Your task to perform on an android device: turn on airplane mode Image 0: 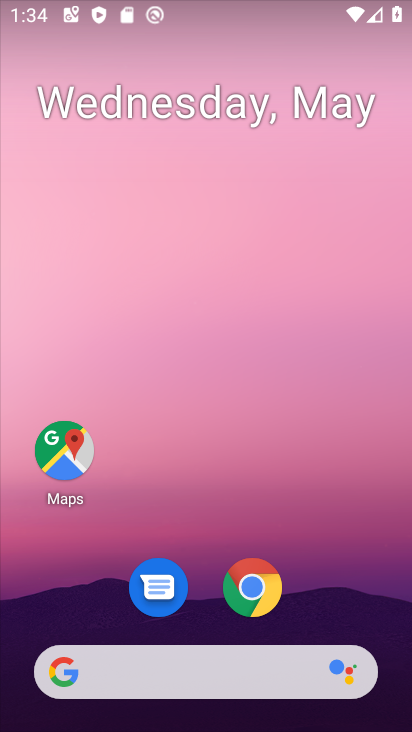
Step 0: drag from (318, 608) to (331, 61)
Your task to perform on an android device: turn on airplane mode Image 1: 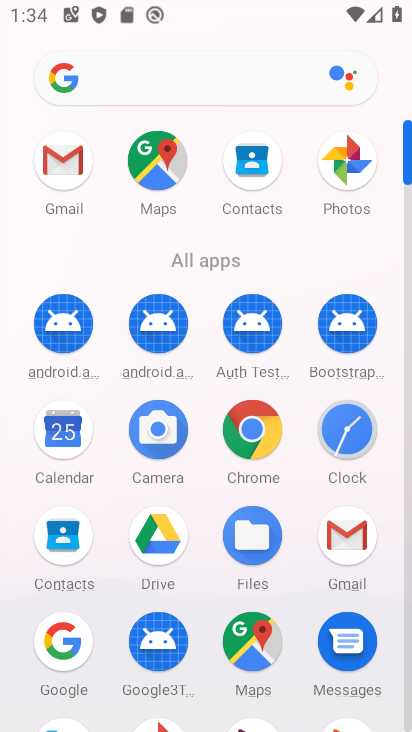
Step 1: drag from (195, 280) to (223, 20)
Your task to perform on an android device: turn on airplane mode Image 2: 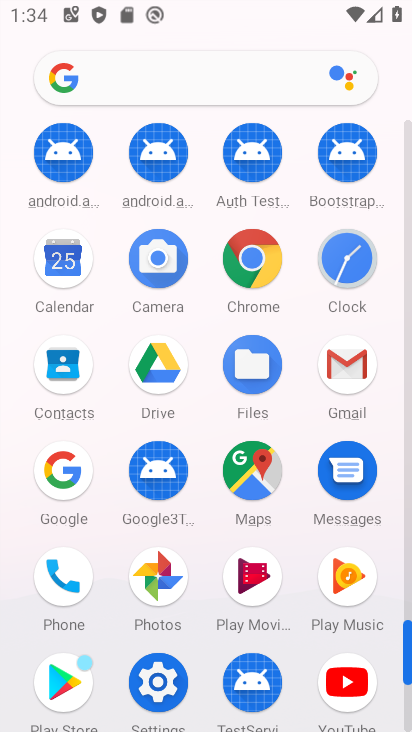
Step 2: click (146, 667)
Your task to perform on an android device: turn on airplane mode Image 3: 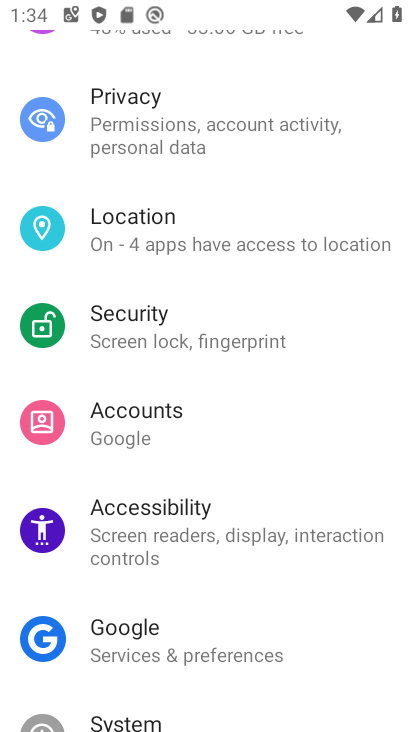
Step 3: drag from (136, 109) to (93, 730)
Your task to perform on an android device: turn on airplane mode Image 4: 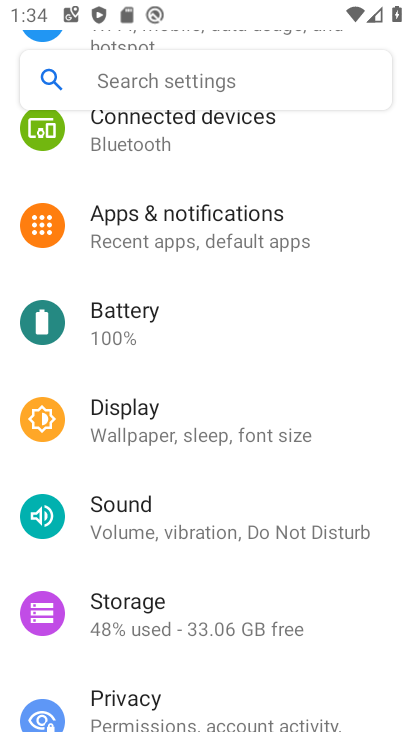
Step 4: drag from (155, 144) to (124, 725)
Your task to perform on an android device: turn on airplane mode Image 5: 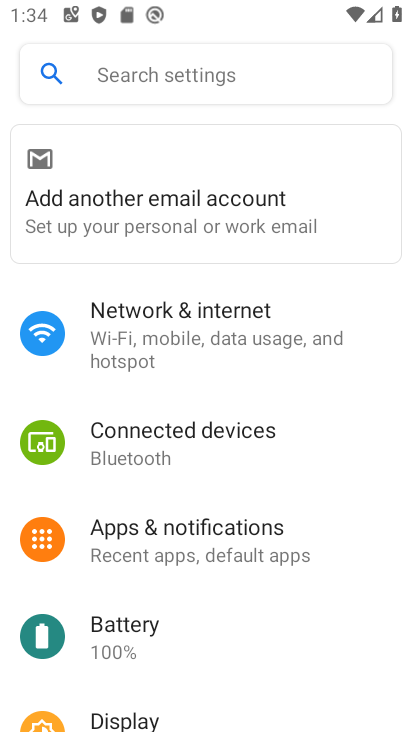
Step 5: drag from (365, 8) to (349, 655)
Your task to perform on an android device: turn on airplane mode Image 6: 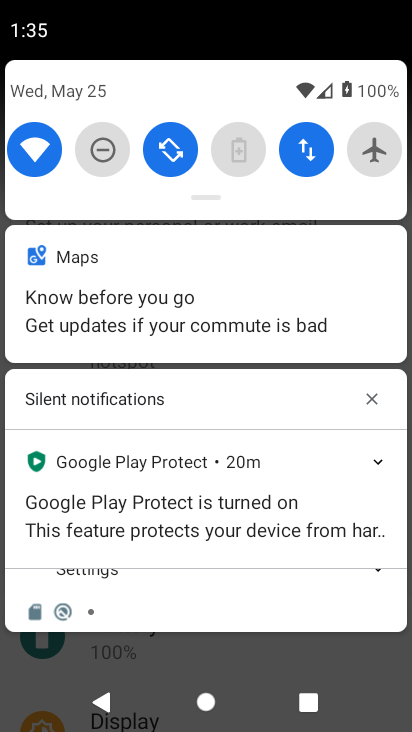
Step 6: click (375, 176)
Your task to perform on an android device: turn on airplane mode Image 7: 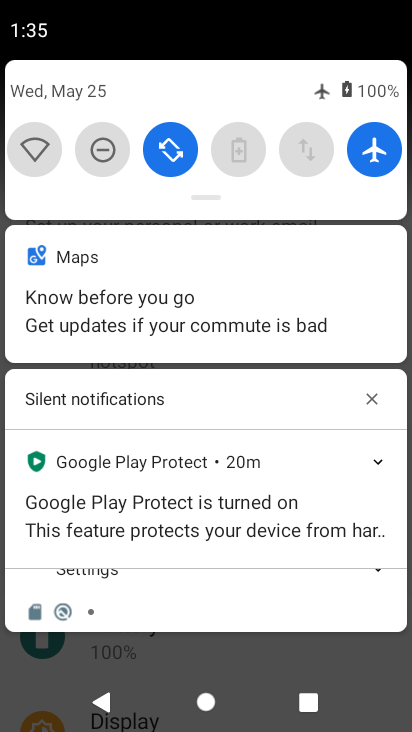
Step 7: task complete